Your task to perform on an android device: Open calendar and show me the third week of next month Image 0: 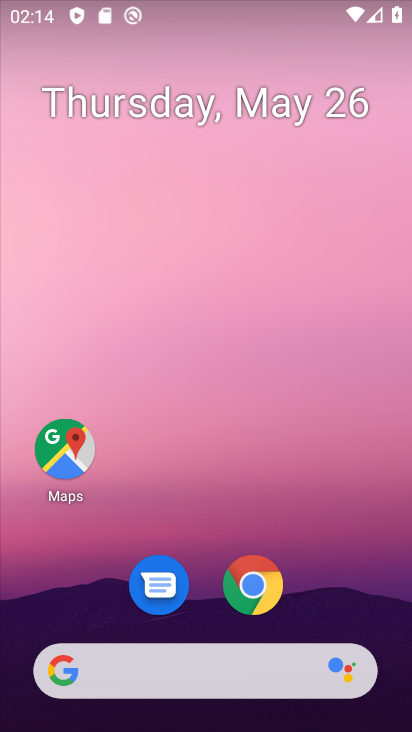
Step 0: drag from (258, 468) to (260, 41)
Your task to perform on an android device: Open calendar and show me the third week of next month Image 1: 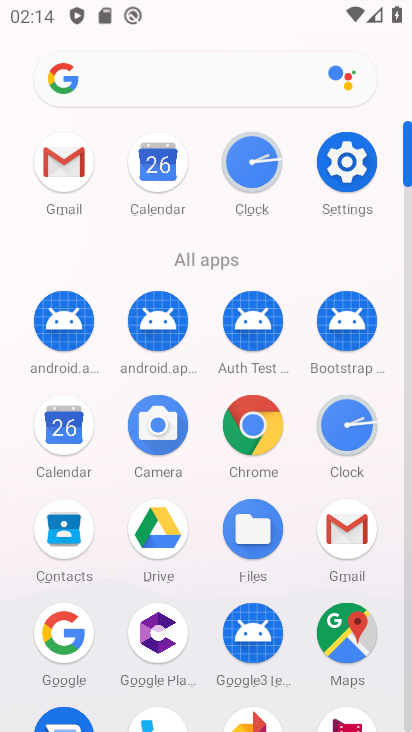
Step 1: click (158, 168)
Your task to perform on an android device: Open calendar and show me the third week of next month Image 2: 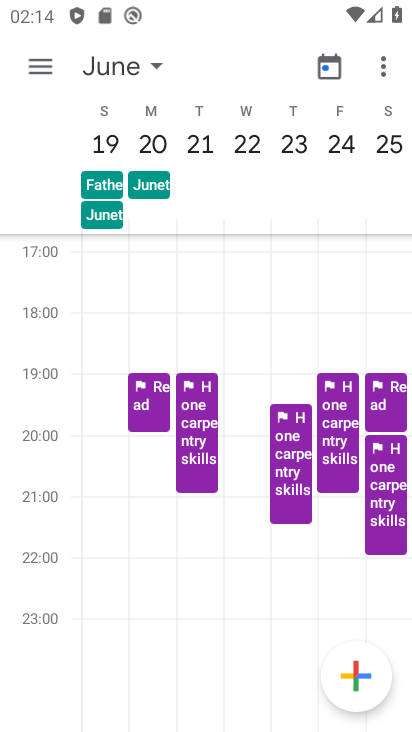
Step 2: task complete